Your task to perform on an android device: Do I have any events today? Image 0: 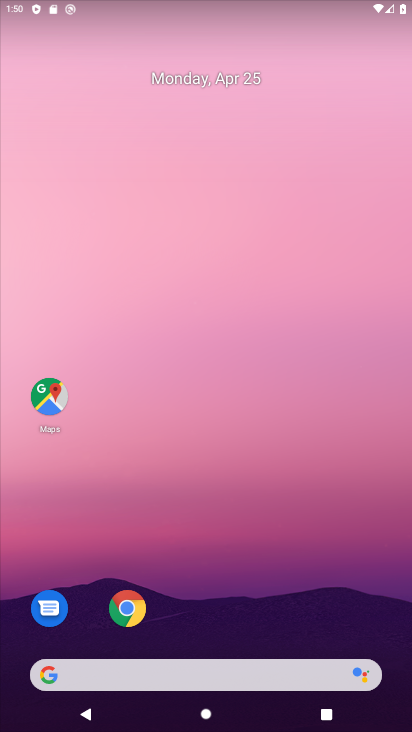
Step 0: drag from (216, 635) to (217, 166)
Your task to perform on an android device: Do I have any events today? Image 1: 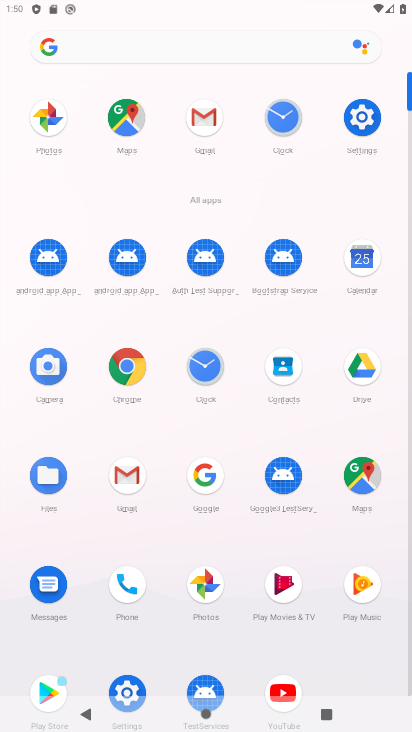
Step 1: click (354, 259)
Your task to perform on an android device: Do I have any events today? Image 2: 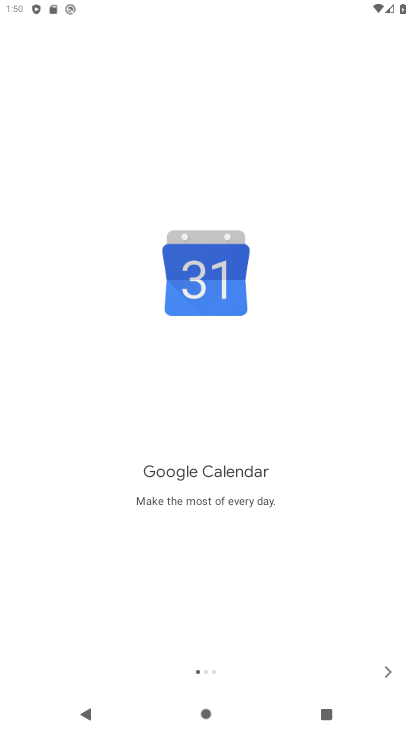
Step 2: click (386, 674)
Your task to perform on an android device: Do I have any events today? Image 3: 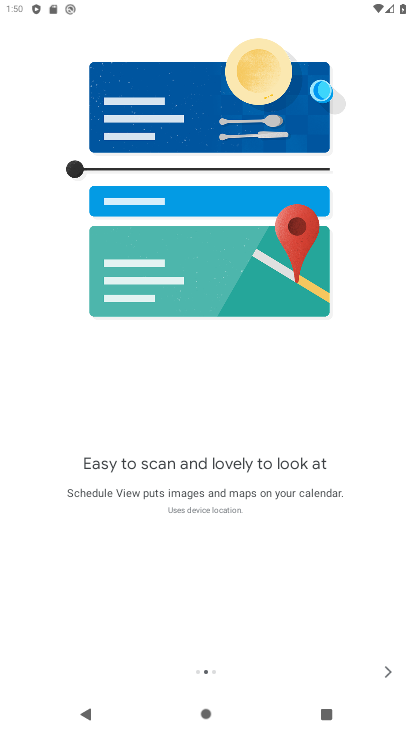
Step 3: click (383, 674)
Your task to perform on an android device: Do I have any events today? Image 4: 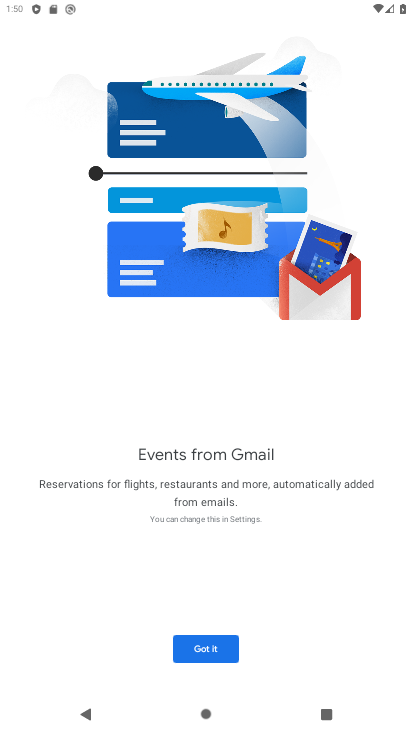
Step 4: click (202, 640)
Your task to perform on an android device: Do I have any events today? Image 5: 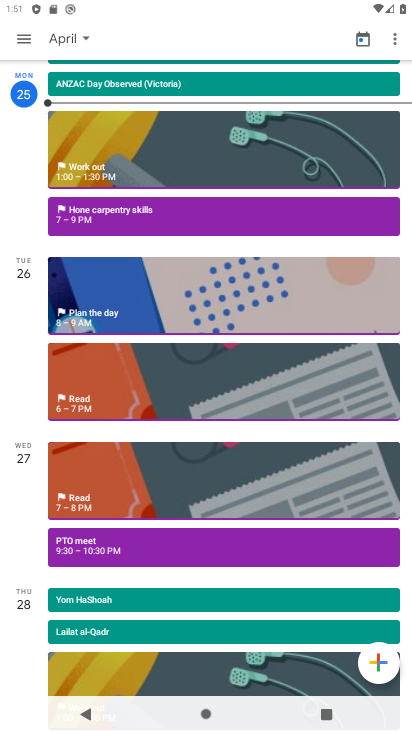
Step 5: click (60, 35)
Your task to perform on an android device: Do I have any events today? Image 6: 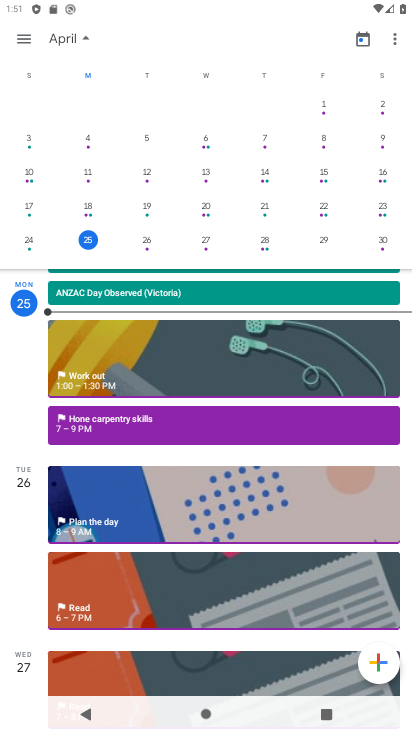
Step 6: click (86, 237)
Your task to perform on an android device: Do I have any events today? Image 7: 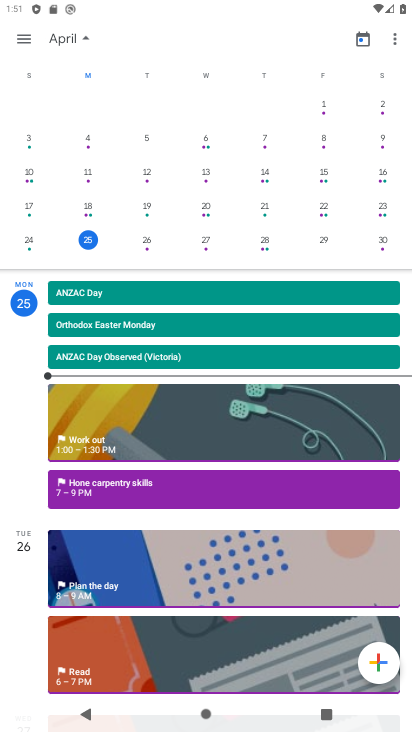
Step 7: drag from (192, 475) to (189, 555)
Your task to perform on an android device: Do I have any events today? Image 8: 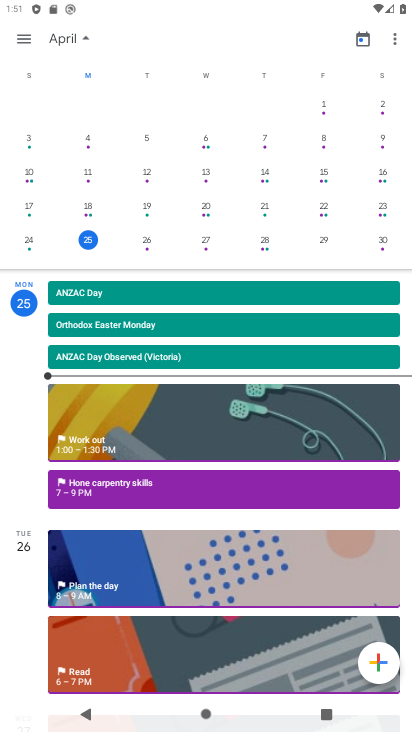
Step 8: click (83, 232)
Your task to perform on an android device: Do I have any events today? Image 9: 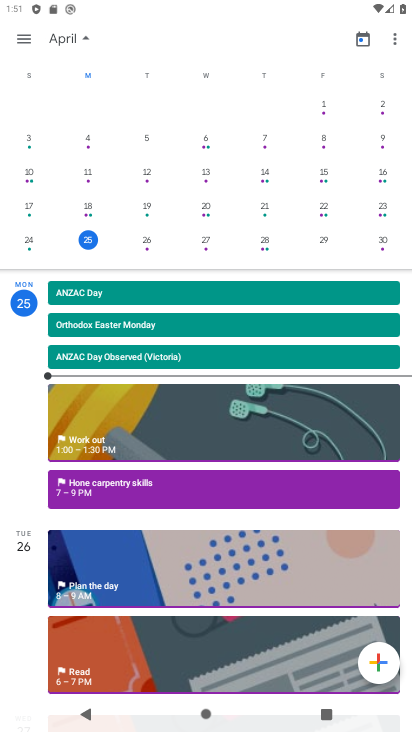
Step 9: task complete